Your task to perform on an android device: add a label to a message in the gmail app Image 0: 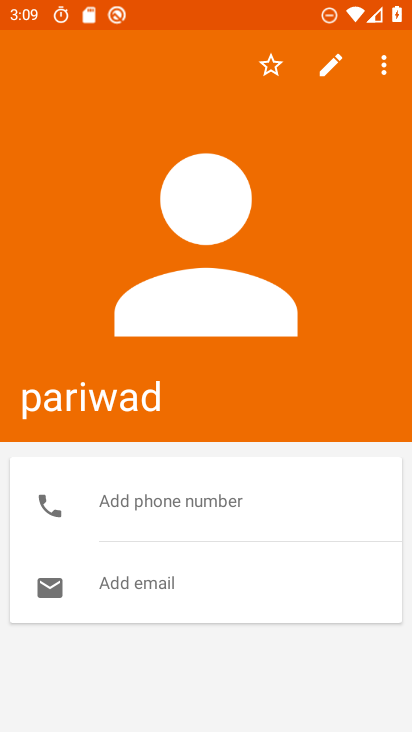
Step 0: press home button
Your task to perform on an android device: add a label to a message in the gmail app Image 1: 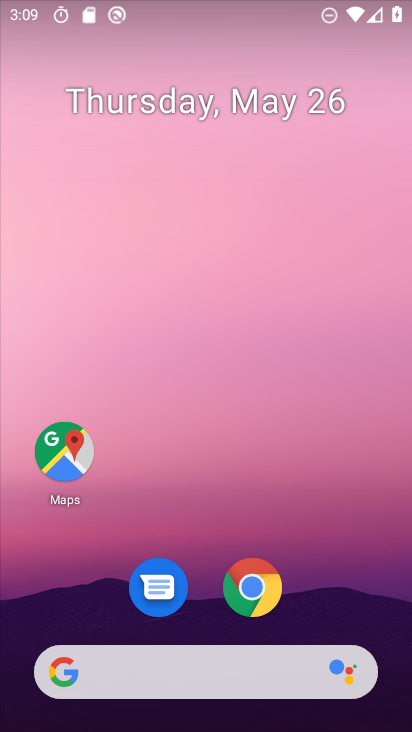
Step 1: drag from (320, 508) to (234, 111)
Your task to perform on an android device: add a label to a message in the gmail app Image 2: 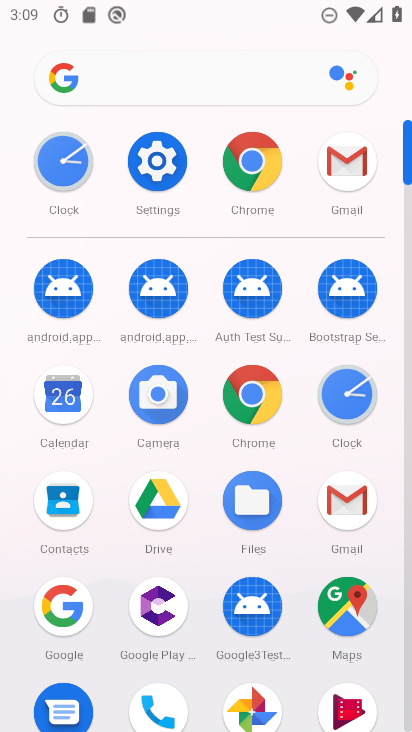
Step 2: click (335, 172)
Your task to perform on an android device: add a label to a message in the gmail app Image 3: 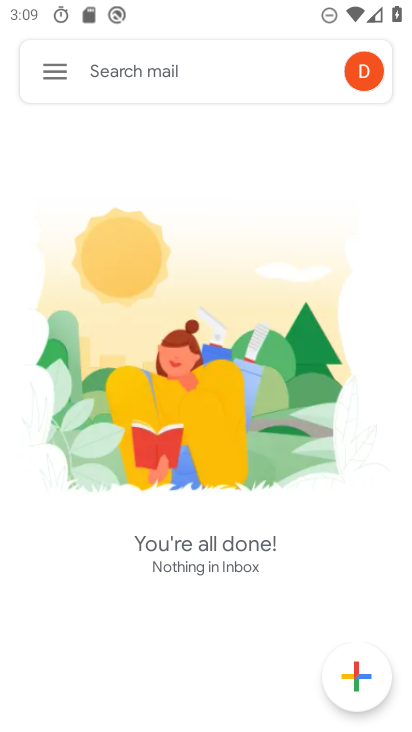
Step 3: click (56, 64)
Your task to perform on an android device: add a label to a message in the gmail app Image 4: 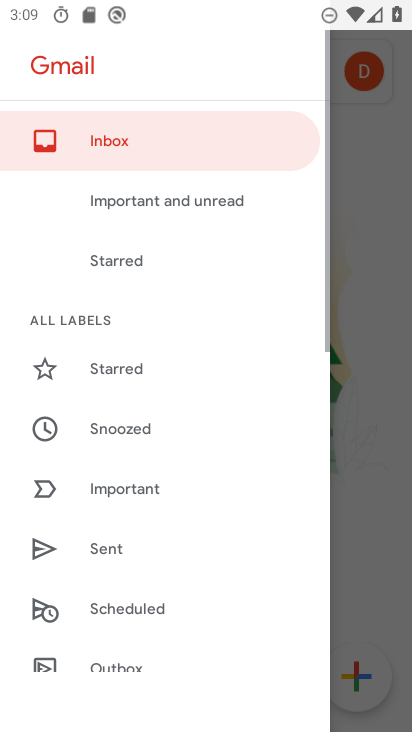
Step 4: drag from (150, 637) to (218, 219)
Your task to perform on an android device: add a label to a message in the gmail app Image 5: 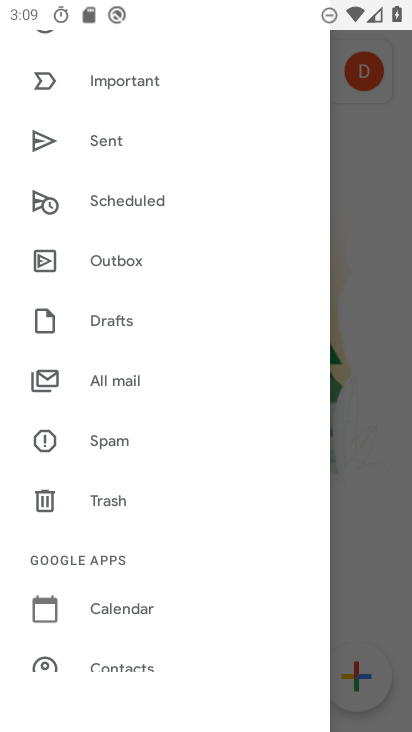
Step 5: click (133, 373)
Your task to perform on an android device: add a label to a message in the gmail app Image 6: 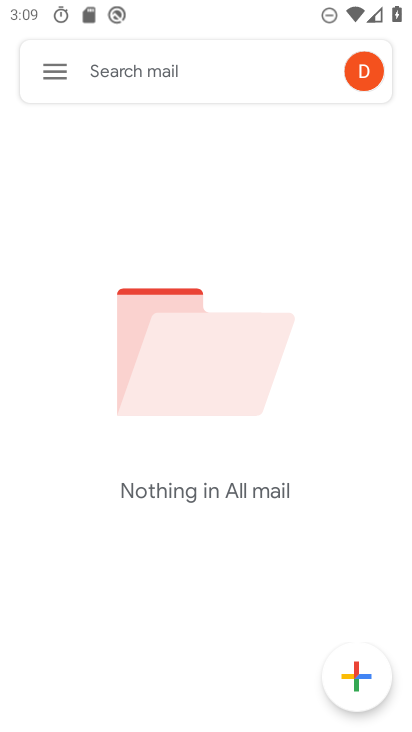
Step 6: task complete